Your task to perform on an android device: uninstall "Fetch Rewards" Image 0: 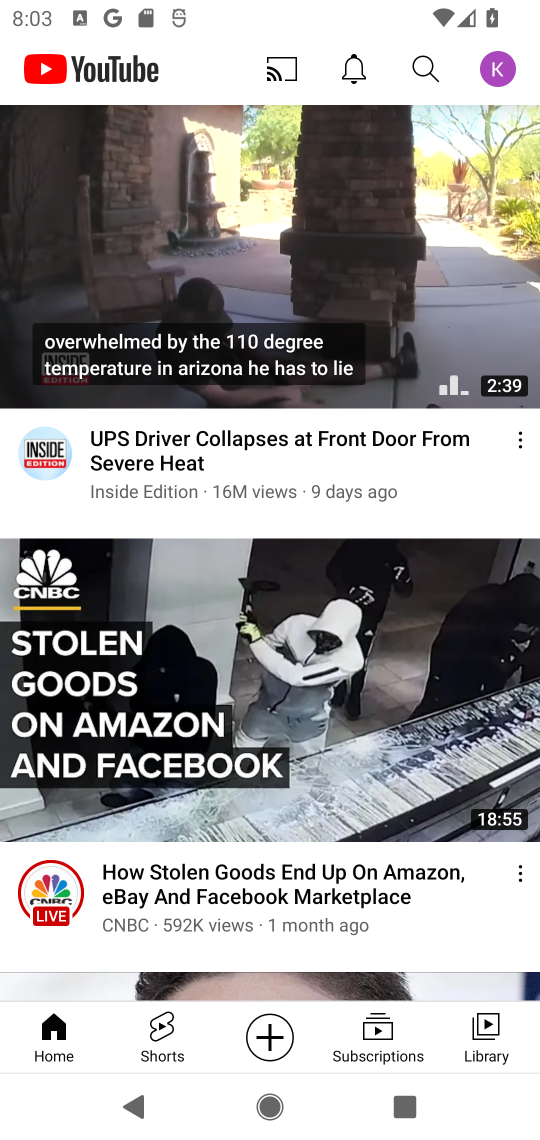
Step 0: press home button
Your task to perform on an android device: uninstall "Fetch Rewards" Image 1: 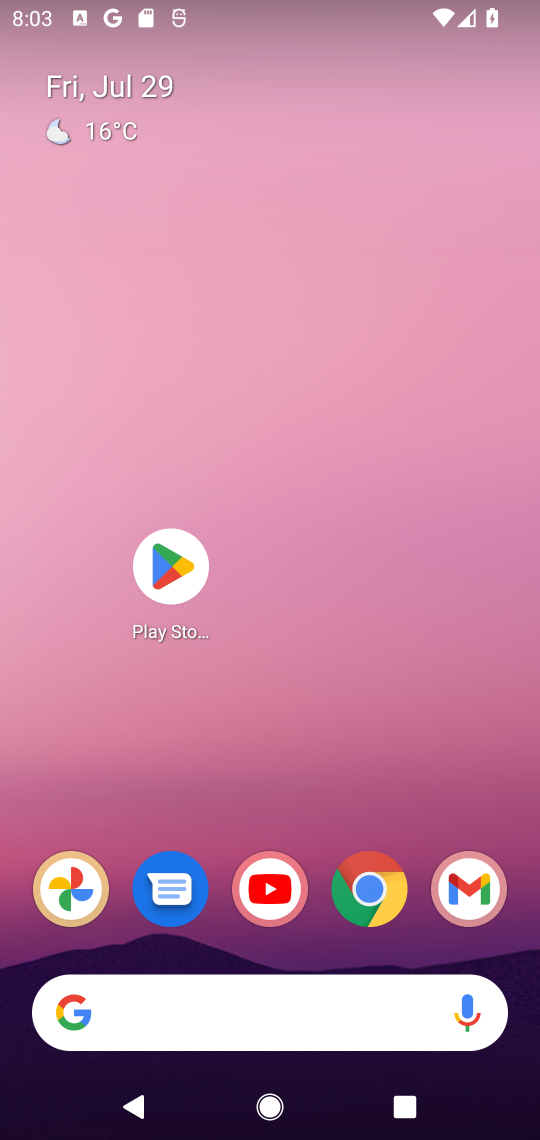
Step 1: click (184, 569)
Your task to perform on an android device: uninstall "Fetch Rewards" Image 2: 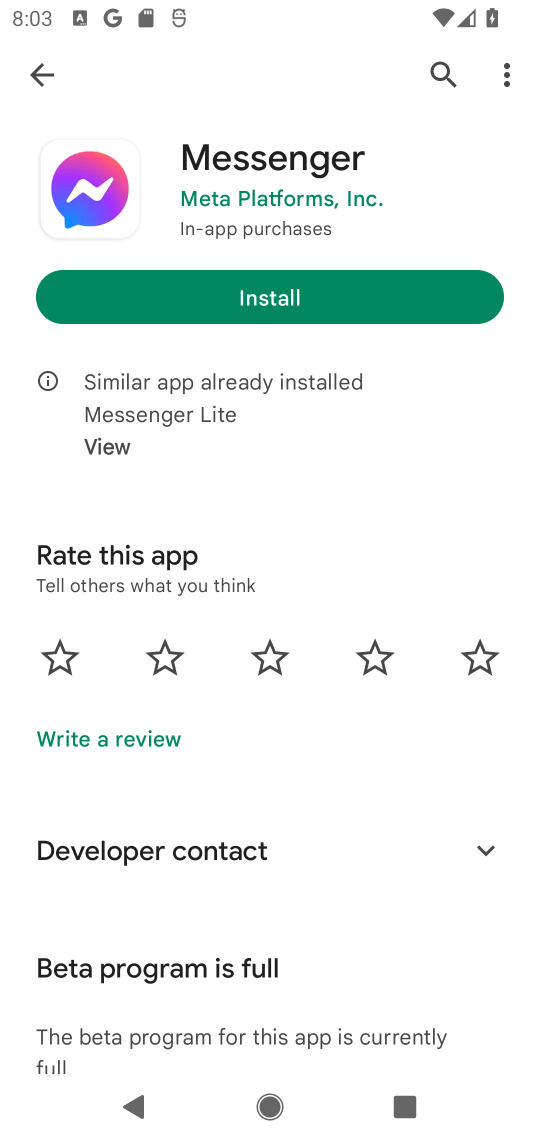
Step 2: click (440, 72)
Your task to perform on an android device: uninstall "Fetch Rewards" Image 3: 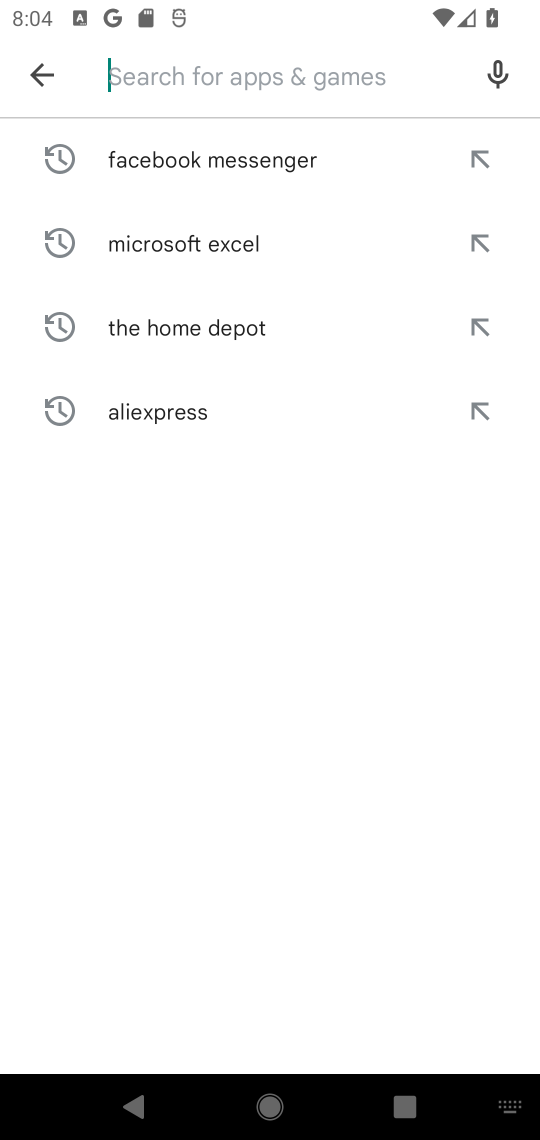
Step 3: type "Fetch Rewards"
Your task to perform on an android device: uninstall "Fetch Rewards" Image 4: 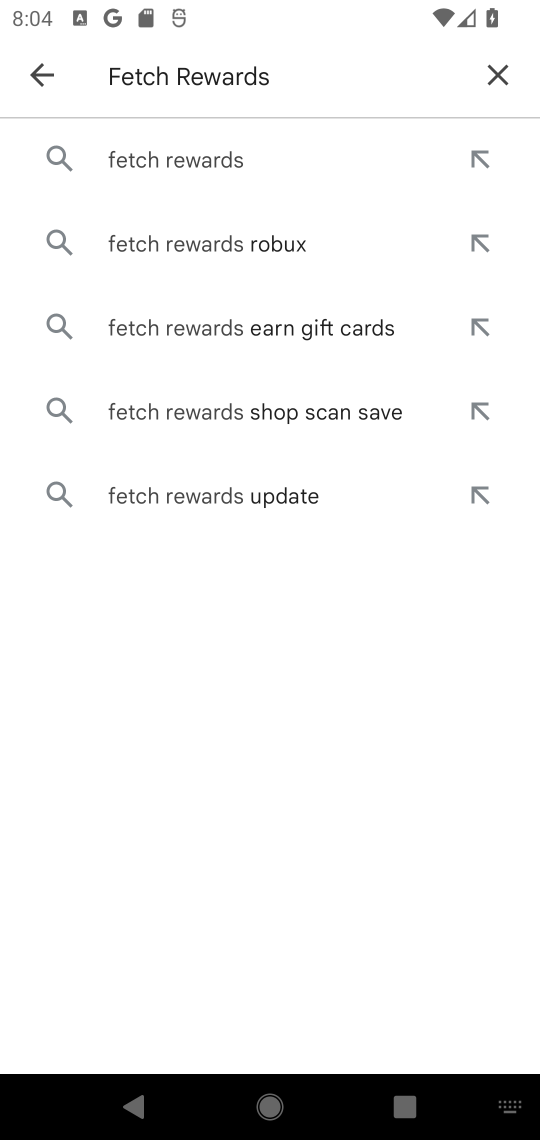
Step 4: click (204, 156)
Your task to perform on an android device: uninstall "Fetch Rewards" Image 5: 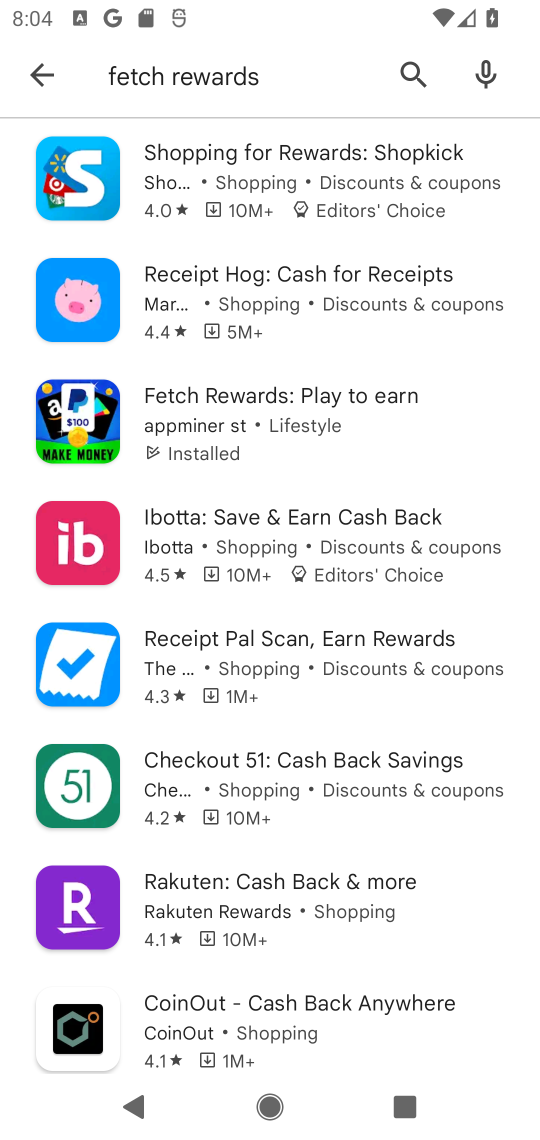
Step 5: click (207, 430)
Your task to perform on an android device: uninstall "Fetch Rewards" Image 6: 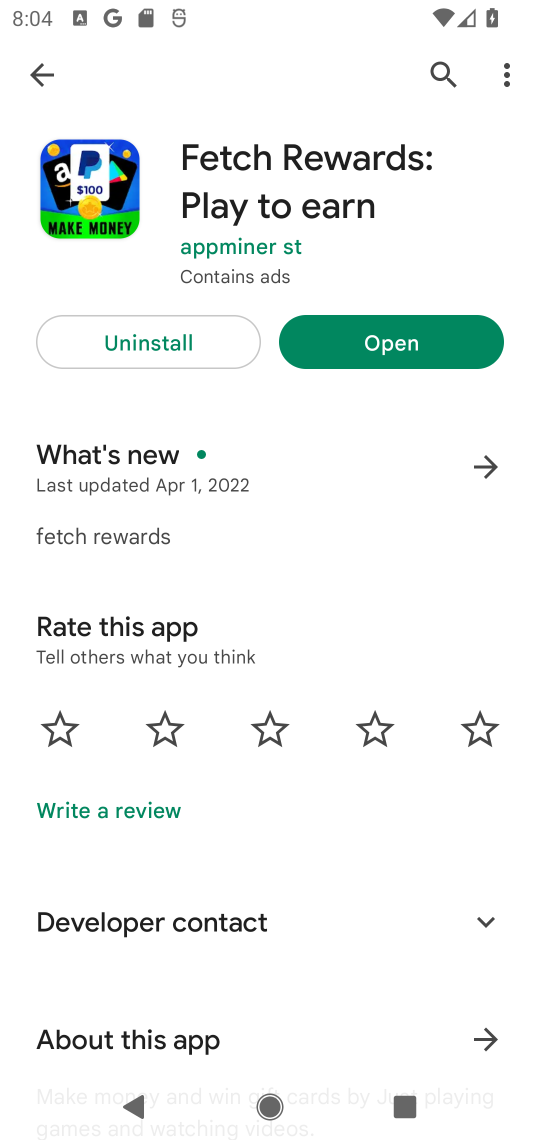
Step 6: click (182, 342)
Your task to perform on an android device: uninstall "Fetch Rewards" Image 7: 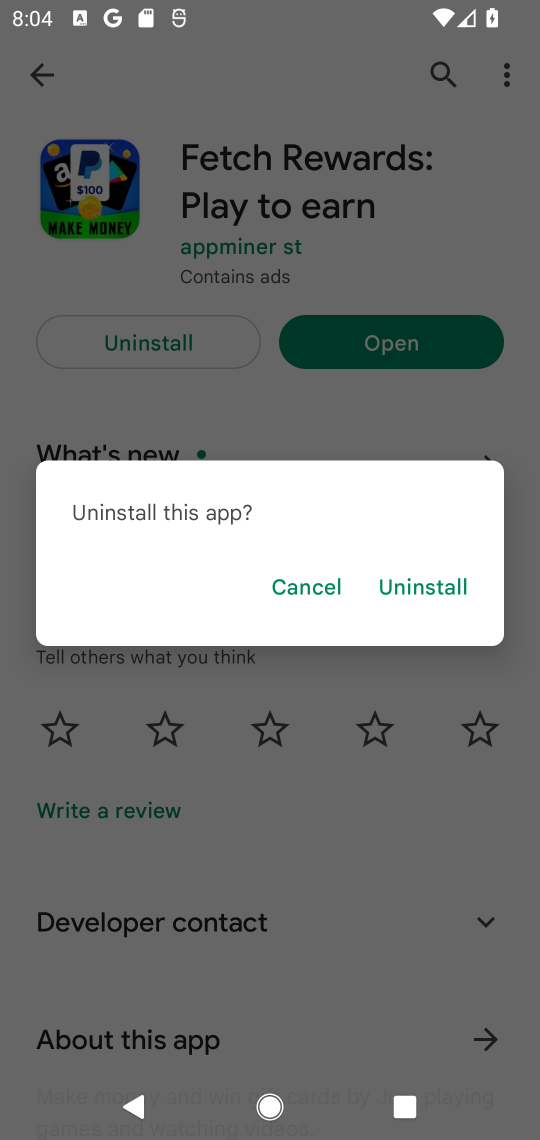
Step 7: click (403, 591)
Your task to perform on an android device: uninstall "Fetch Rewards" Image 8: 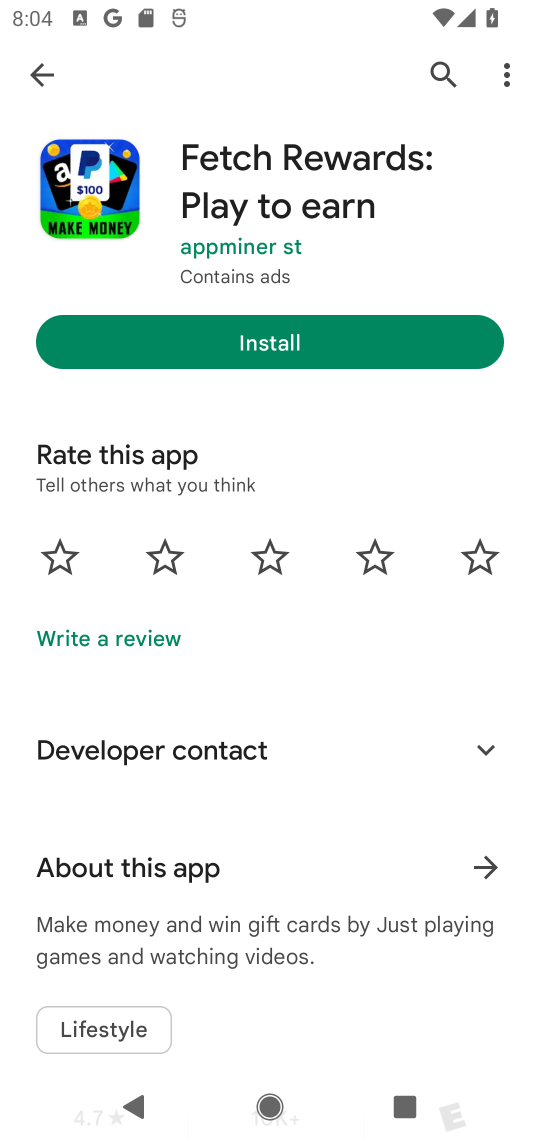
Step 8: task complete